Your task to perform on an android device: Open calendar and show me the first week of next month Image 0: 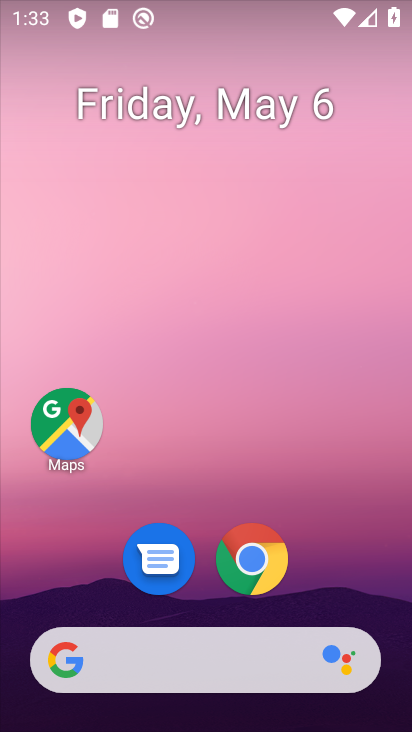
Step 0: drag from (325, 614) to (312, 41)
Your task to perform on an android device: Open calendar and show me the first week of next month Image 1: 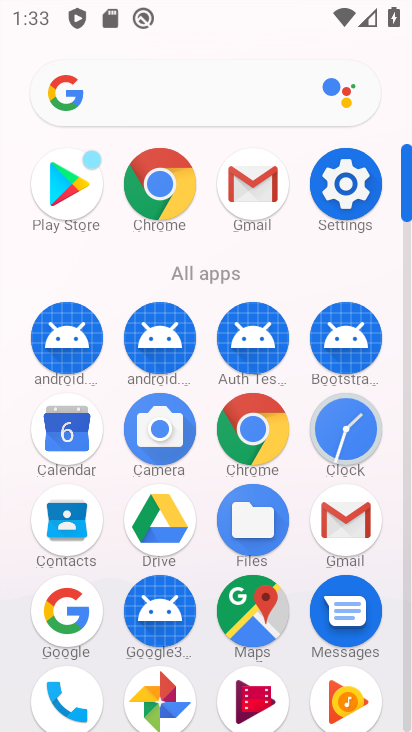
Step 1: click (73, 438)
Your task to perform on an android device: Open calendar and show me the first week of next month Image 2: 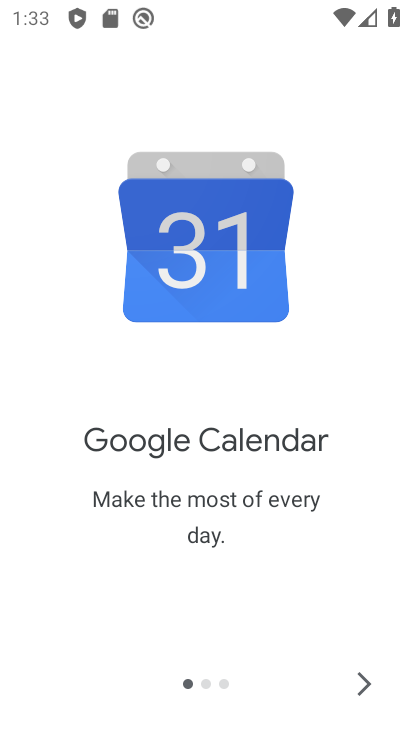
Step 2: click (358, 673)
Your task to perform on an android device: Open calendar and show me the first week of next month Image 3: 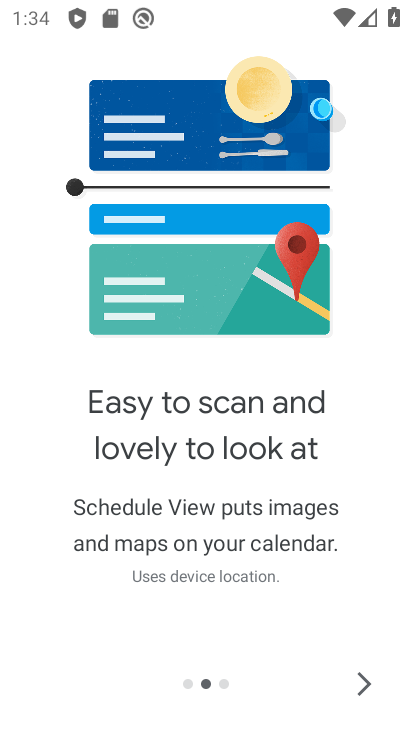
Step 3: click (360, 692)
Your task to perform on an android device: Open calendar and show me the first week of next month Image 4: 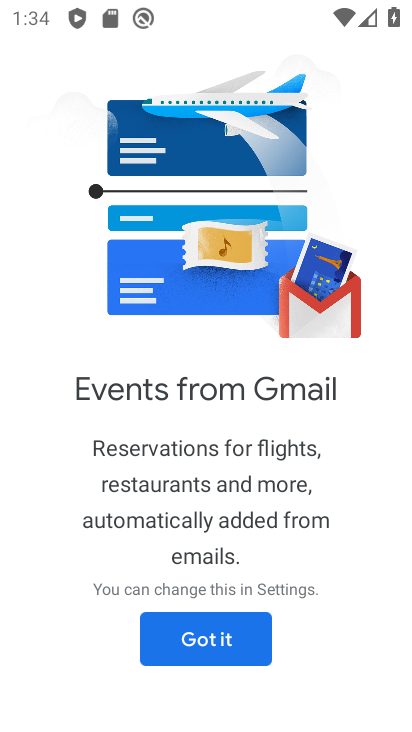
Step 4: click (230, 656)
Your task to perform on an android device: Open calendar and show me the first week of next month Image 5: 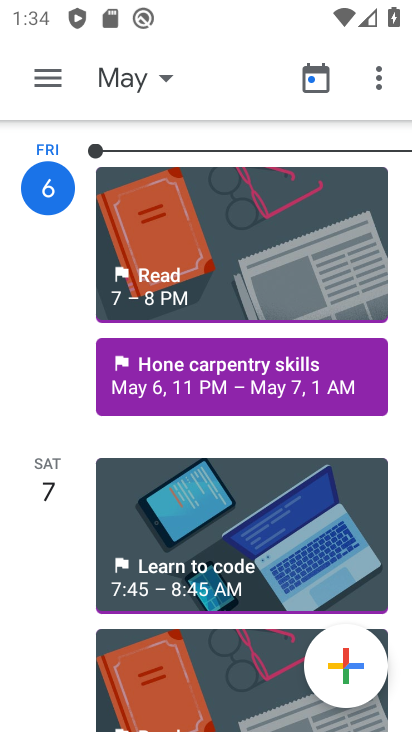
Step 5: click (161, 79)
Your task to perform on an android device: Open calendar and show me the first week of next month Image 6: 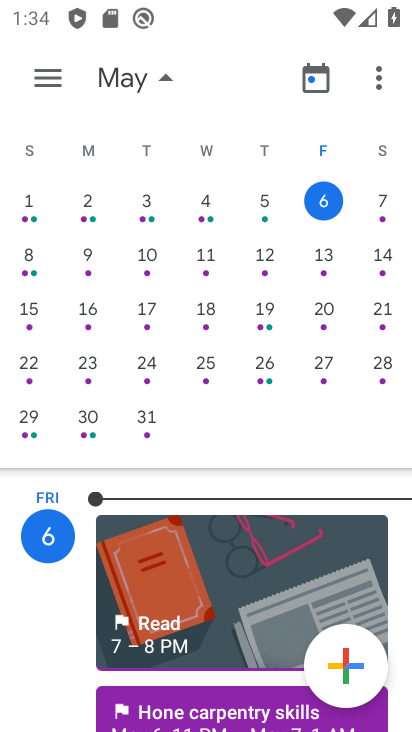
Step 6: drag from (376, 290) to (10, 311)
Your task to perform on an android device: Open calendar and show me the first week of next month Image 7: 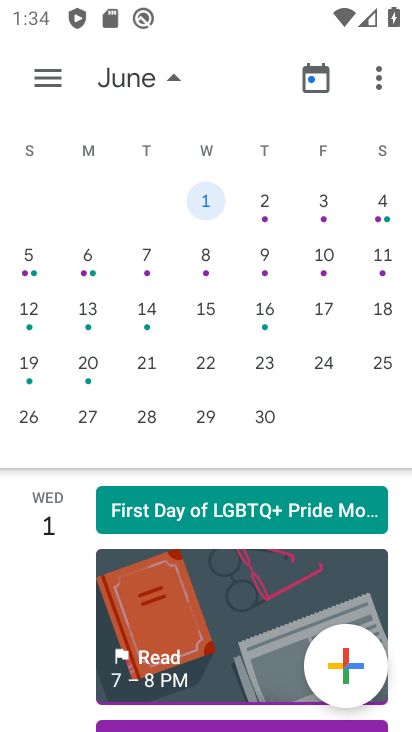
Step 7: click (320, 208)
Your task to perform on an android device: Open calendar and show me the first week of next month Image 8: 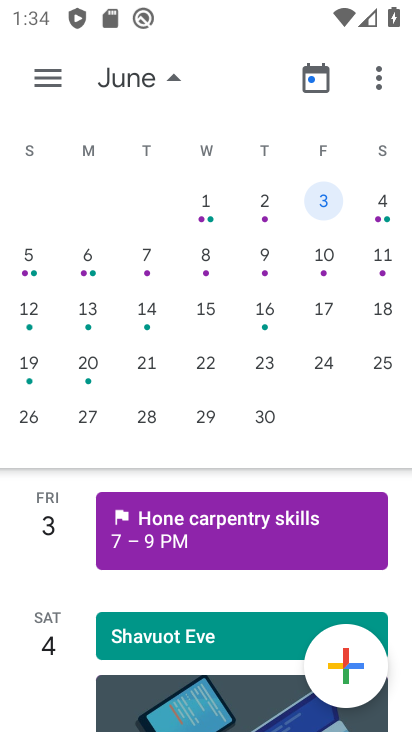
Step 8: task complete